Your task to perform on an android device: Go to settings Image 0: 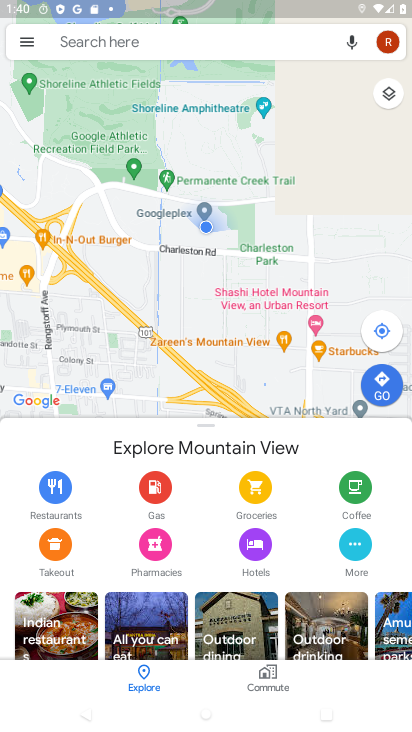
Step 0: click (216, 615)
Your task to perform on an android device: Go to settings Image 1: 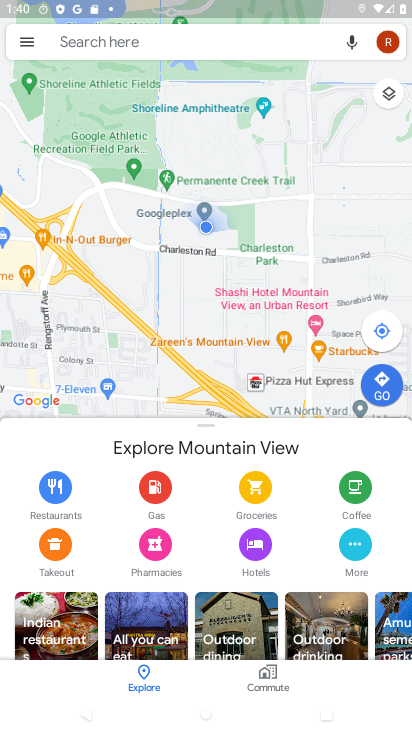
Step 1: press home button
Your task to perform on an android device: Go to settings Image 2: 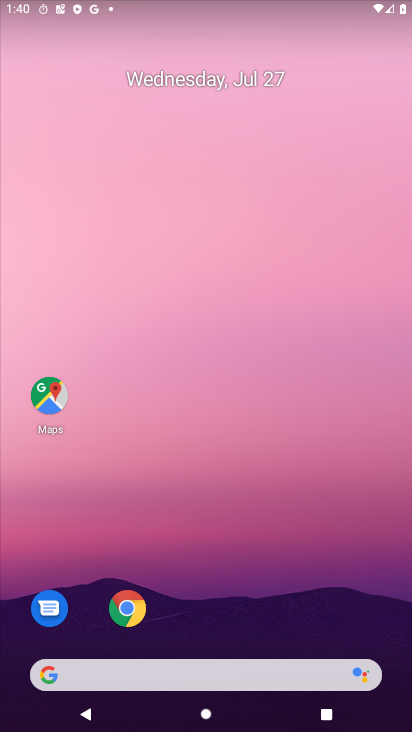
Step 2: drag from (187, 625) to (187, 260)
Your task to perform on an android device: Go to settings Image 3: 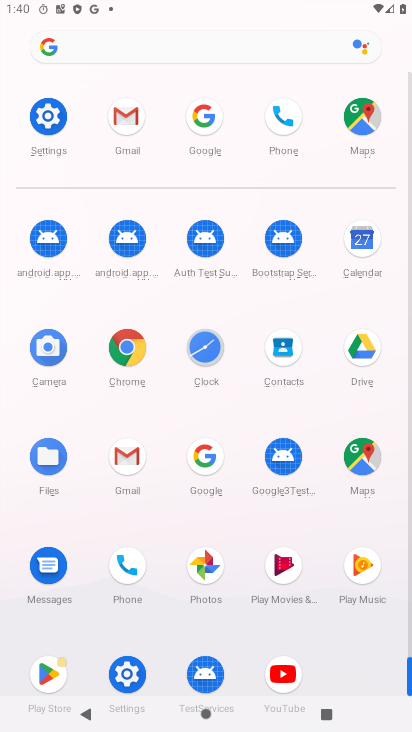
Step 3: click (122, 668)
Your task to perform on an android device: Go to settings Image 4: 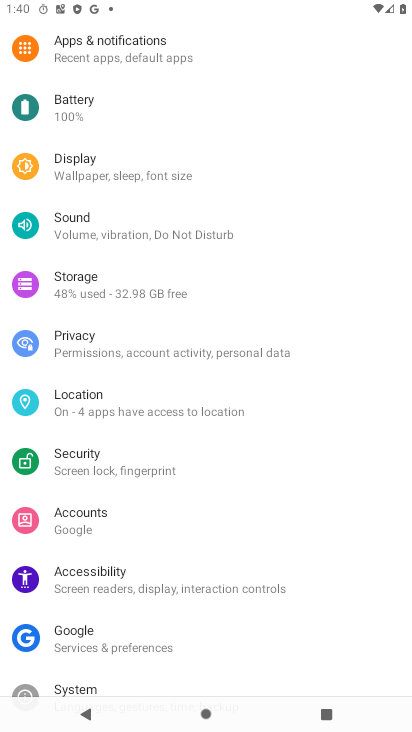
Step 4: task complete